Your task to perform on an android device: turn off priority inbox in the gmail app Image 0: 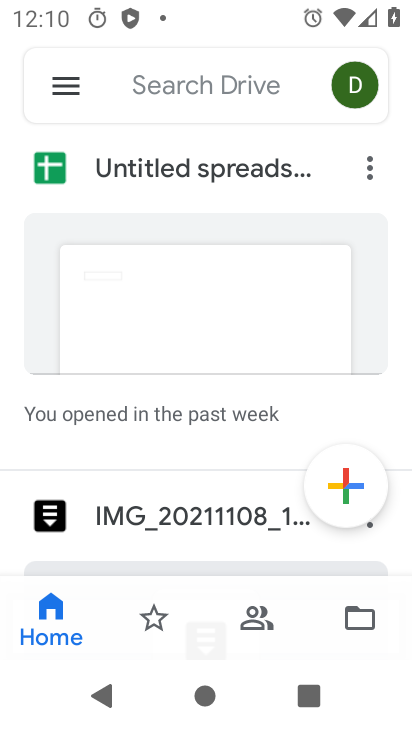
Step 0: press back button
Your task to perform on an android device: turn off priority inbox in the gmail app Image 1: 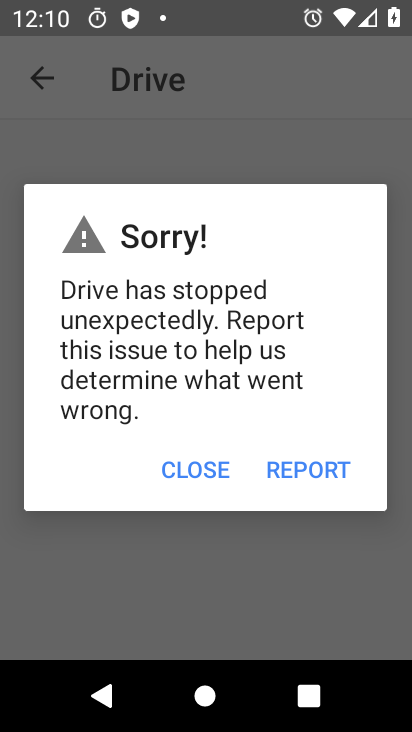
Step 1: press home button
Your task to perform on an android device: turn off priority inbox in the gmail app Image 2: 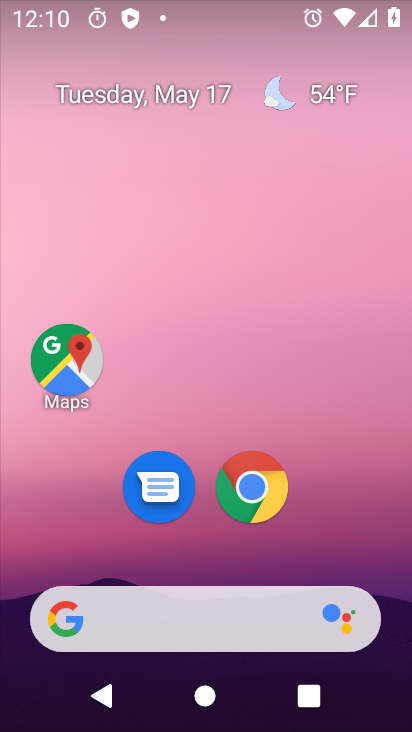
Step 2: drag from (170, 545) to (270, 55)
Your task to perform on an android device: turn off priority inbox in the gmail app Image 3: 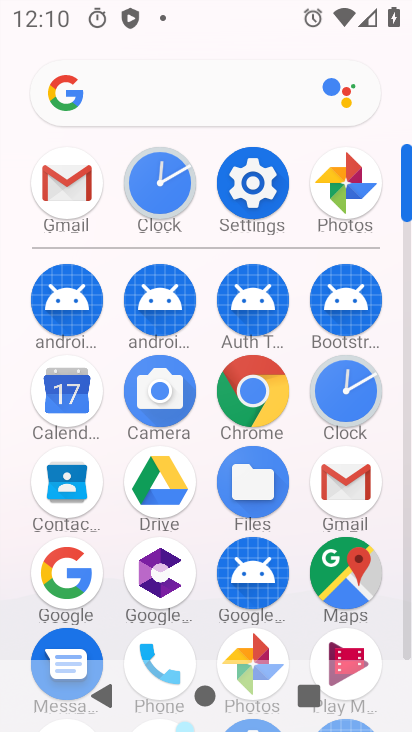
Step 3: click (72, 195)
Your task to perform on an android device: turn off priority inbox in the gmail app Image 4: 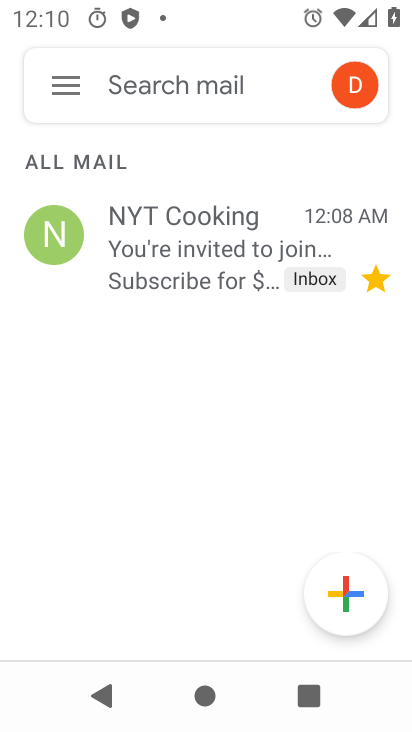
Step 4: click (60, 79)
Your task to perform on an android device: turn off priority inbox in the gmail app Image 5: 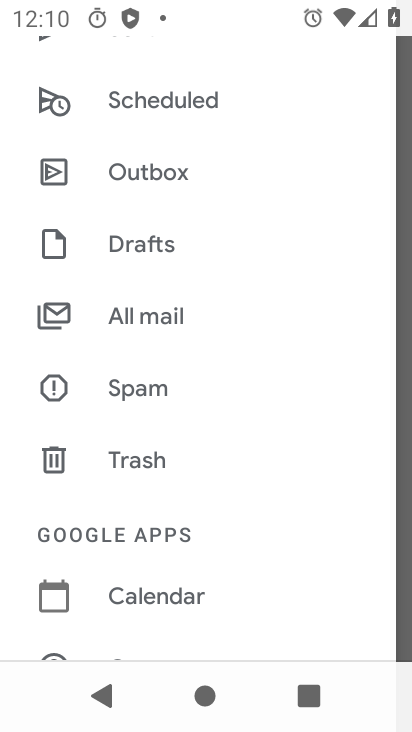
Step 5: drag from (144, 636) to (276, 20)
Your task to perform on an android device: turn off priority inbox in the gmail app Image 6: 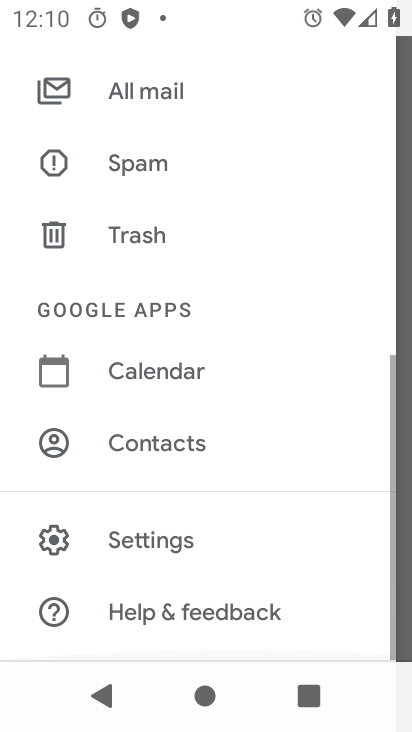
Step 6: click (117, 546)
Your task to perform on an android device: turn off priority inbox in the gmail app Image 7: 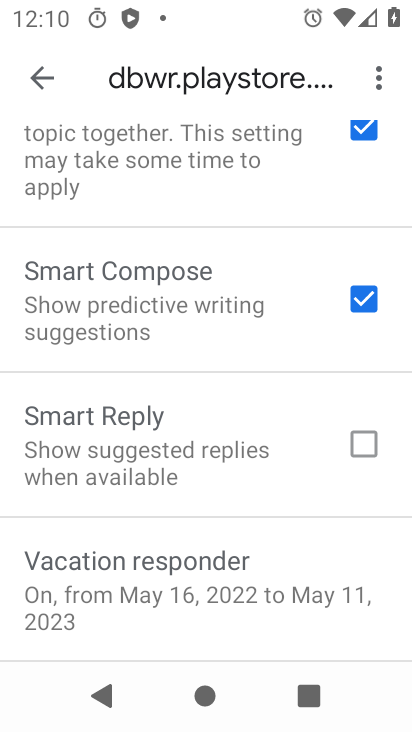
Step 7: drag from (181, 205) to (183, 640)
Your task to perform on an android device: turn off priority inbox in the gmail app Image 8: 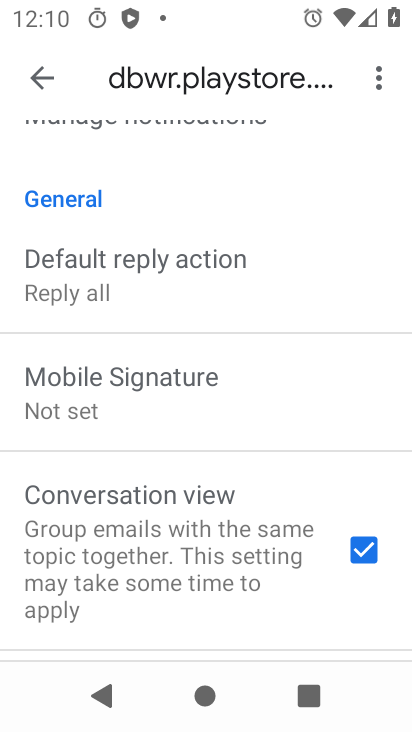
Step 8: drag from (149, 223) to (112, 653)
Your task to perform on an android device: turn off priority inbox in the gmail app Image 9: 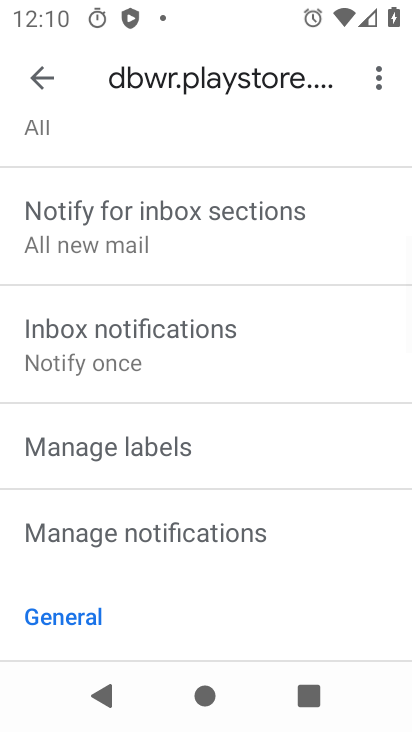
Step 9: drag from (135, 223) to (135, 715)
Your task to perform on an android device: turn off priority inbox in the gmail app Image 10: 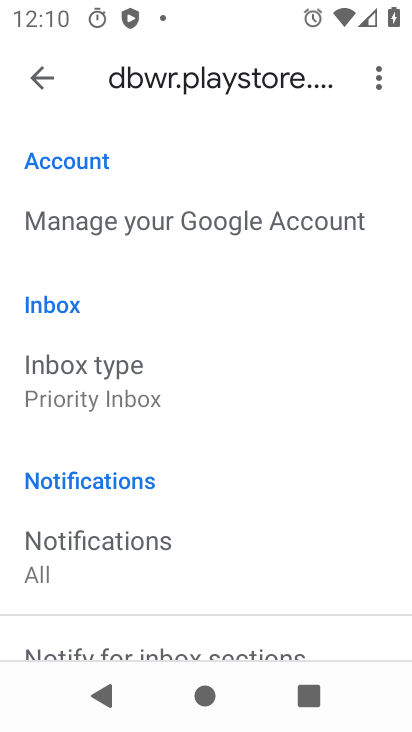
Step 10: click (90, 394)
Your task to perform on an android device: turn off priority inbox in the gmail app Image 11: 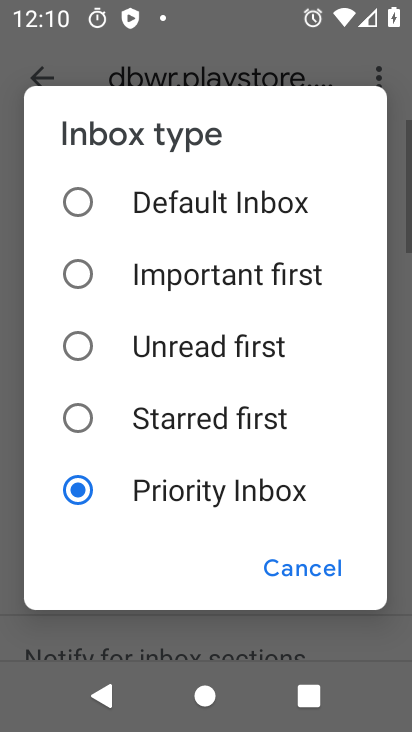
Step 11: click (70, 178)
Your task to perform on an android device: turn off priority inbox in the gmail app Image 12: 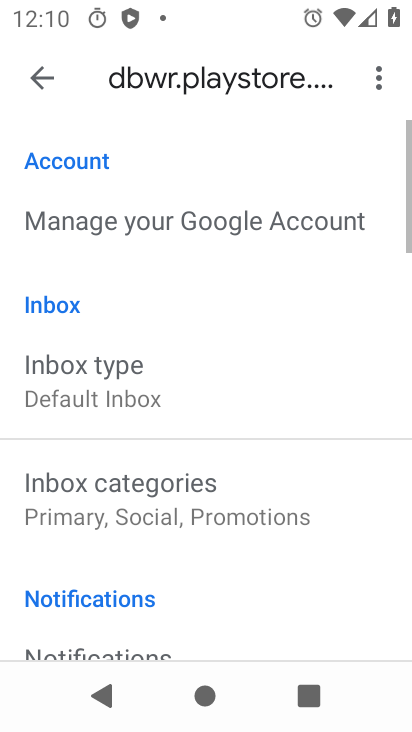
Step 12: task complete